Your task to perform on an android device: Open the calendar app, open the side menu, and click the "Day" option Image 0: 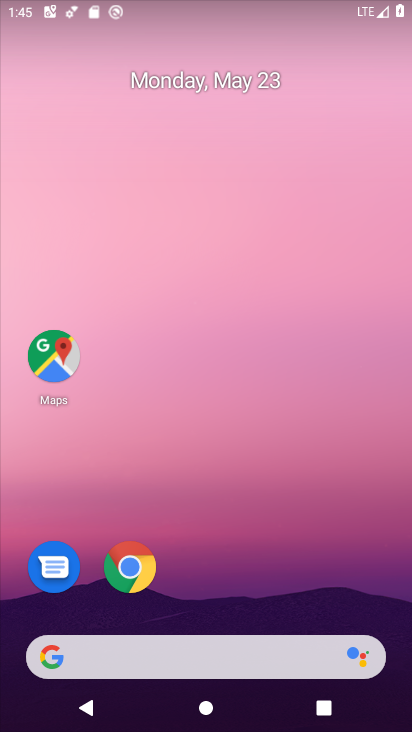
Step 0: drag from (250, 587) to (251, 176)
Your task to perform on an android device: Open the calendar app, open the side menu, and click the "Day" option Image 1: 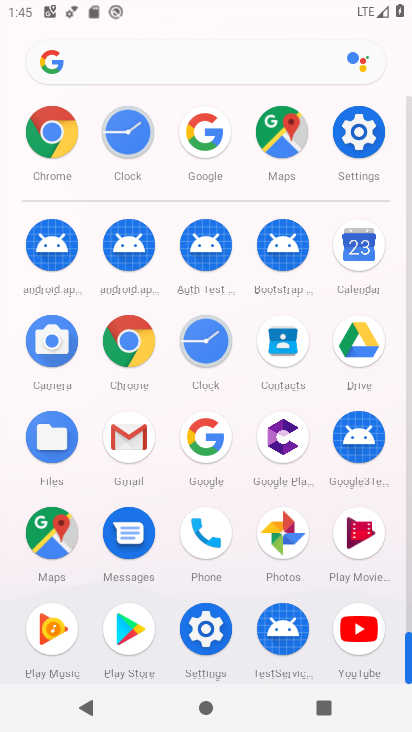
Step 1: click (359, 240)
Your task to perform on an android device: Open the calendar app, open the side menu, and click the "Day" option Image 2: 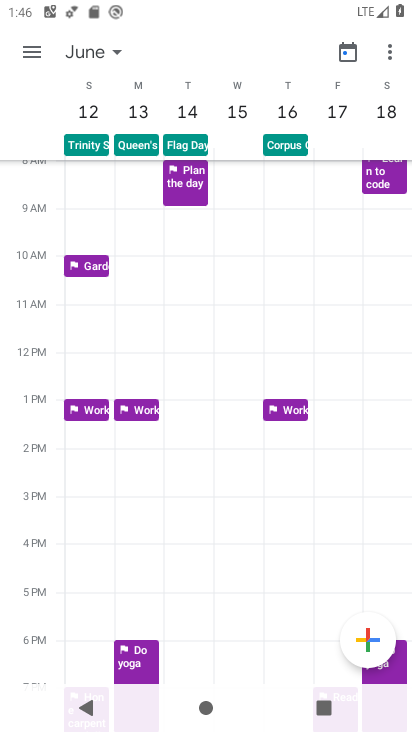
Step 2: click (29, 58)
Your task to perform on an android device: Open the calendar app, open the side menu, and click the "Day" option Image 3: 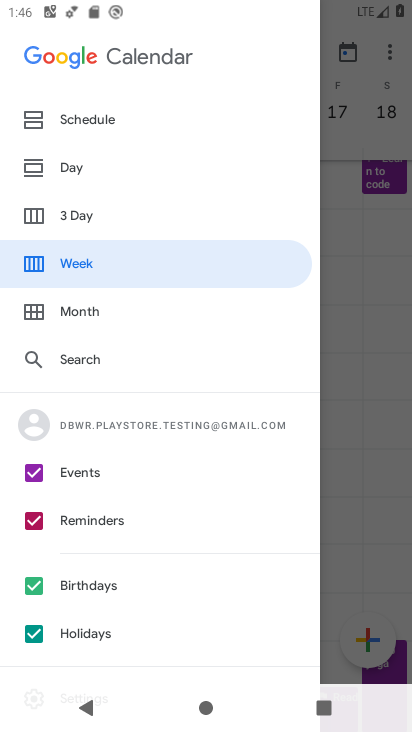
Step 3: click (103, 167)
Your task to perform on an android device: Open the calendar app, open the side menu, and click the "Day" option Image 4: 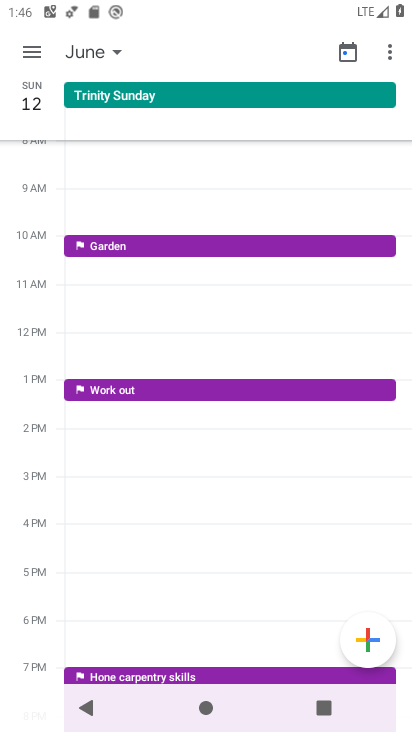
Step 4: task complete